Your task to perform on an android device: manage bookmarks in the chrome app Image 0: 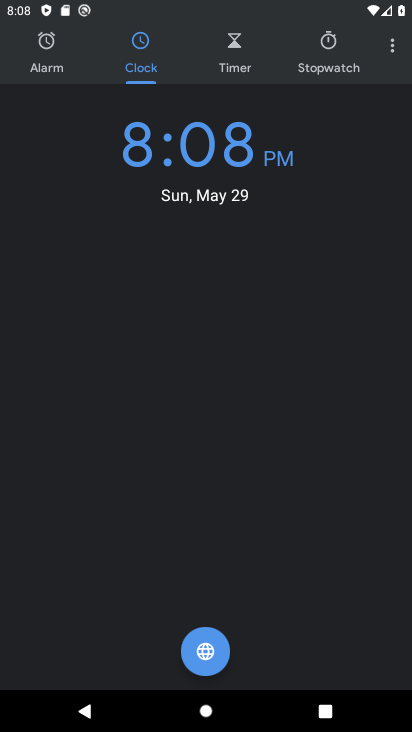
Step 0: press home button
Your task to perform on an android device: manage bookmarks in the chrome app Image 1: 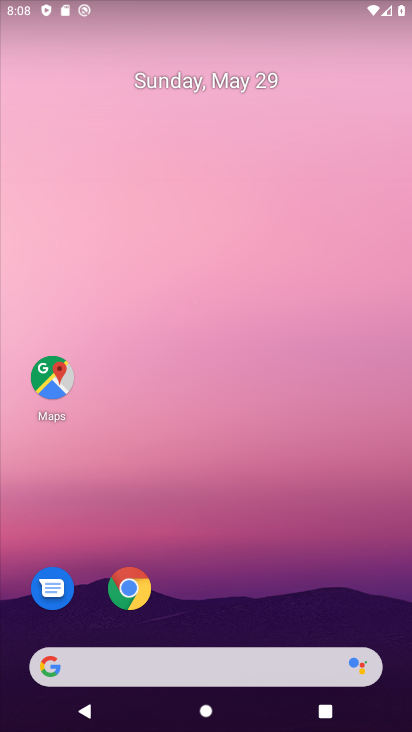
Step 1: click (133, 586)
Your task to perform on an android device: manage bookmarks in the chrome app Image 2: 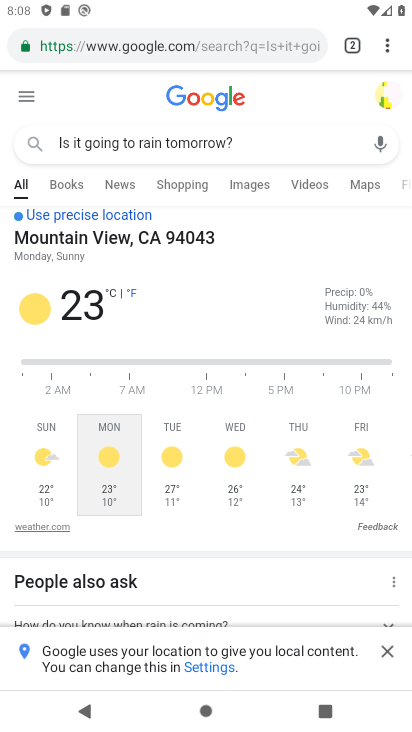
Step 2: click (386, 50)
Your task to perform on an android device: manage bookmarks in the chrome app Image 3: 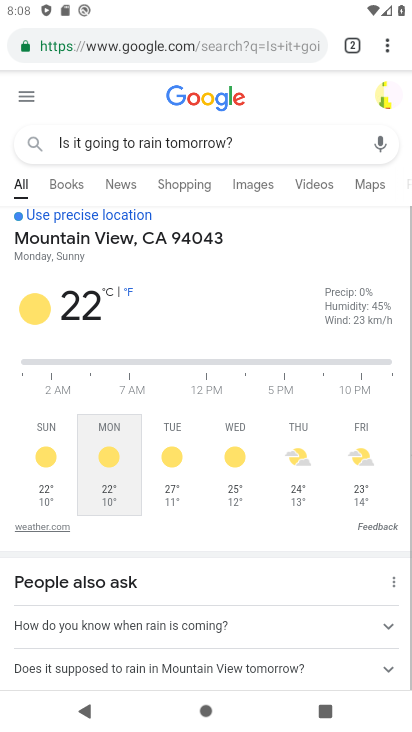
Step 3: click (390, 40)
Your task to perform on an android device: manage bookmarks in the chrome app Image 4: 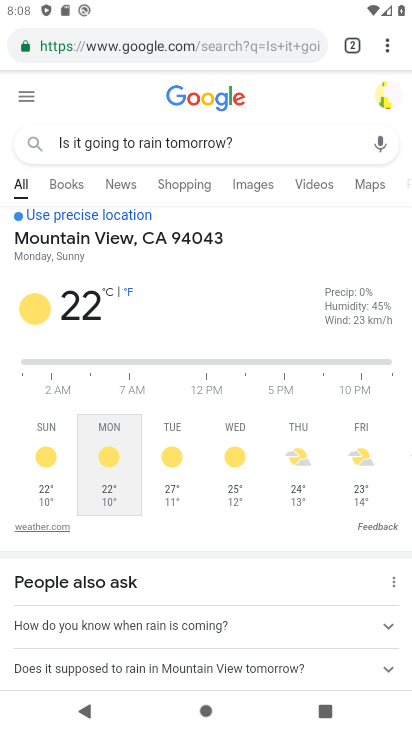
Step 4: click (383, 44)
Your task to perform on an android device: manage bookmarks in the chrome app Image 5: 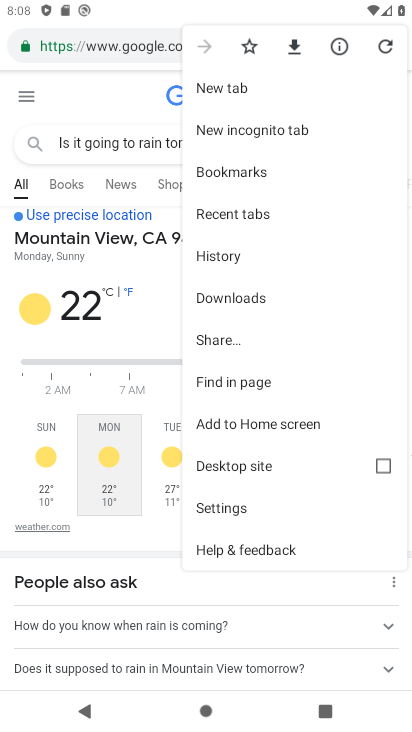
Step 5: click (242, 168)
Your task to perform on an android device: manage bookmarks in the chrome app Image 6: 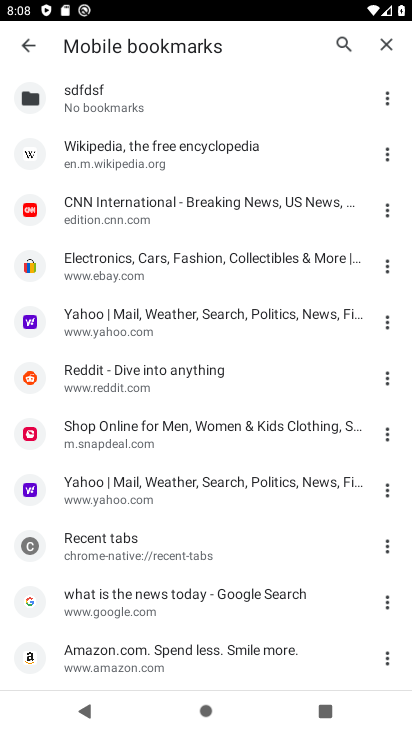
Step 6: click (143, 201)
Your task to perform on an android device: manage bookmarks in the chrome app Image 7: 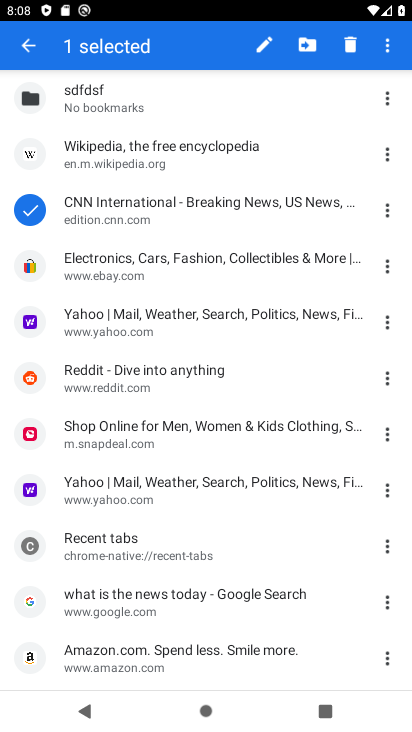
Step 7: click (319, 43)
Your task to perform on an android device: manage bookmarks in the chrome app Image 8: 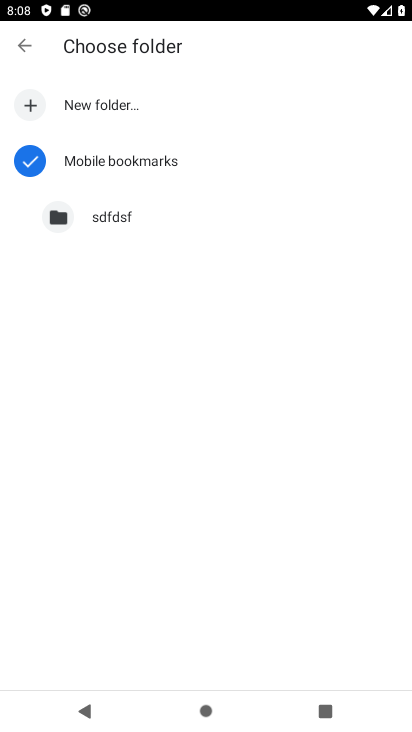
Step 8: click (119, 218)
Your task to perform on an android device: manage bookmarks in the chrome app Image 9: 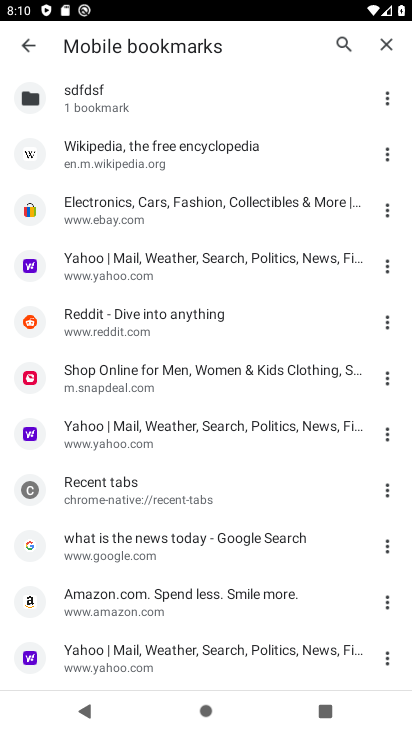
Step 9: task complete